Your task to perform on an android device: turn on data saver in the chrome app Image 0: 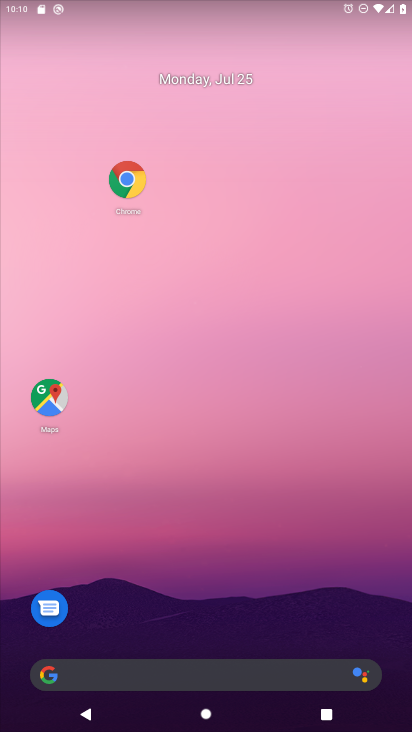
Step 0: click (119, 186)
Your task to perform on an android device: turn on data saver in the chrome app Image 1: 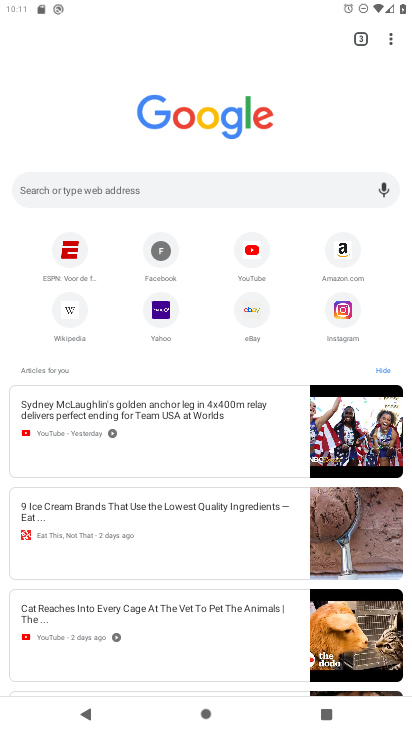
Step 1: click (392, 36)
Your task to perform on an android device: turn on data saver in the chrome app Image 2: 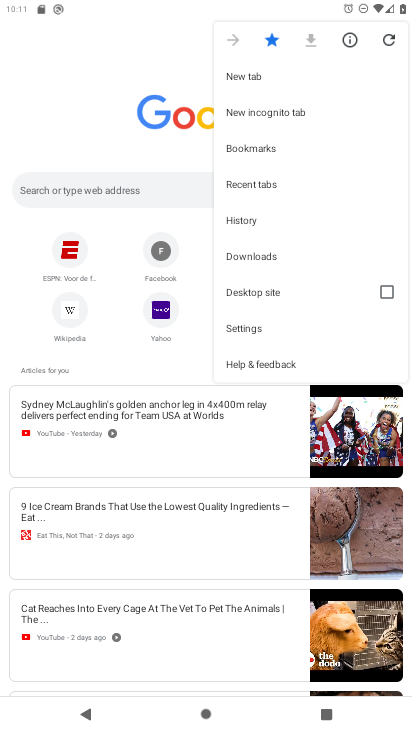
Step 2: click (257, 330)
Your task to perform on an android device: turn on data saver in the chrome app Image 3: 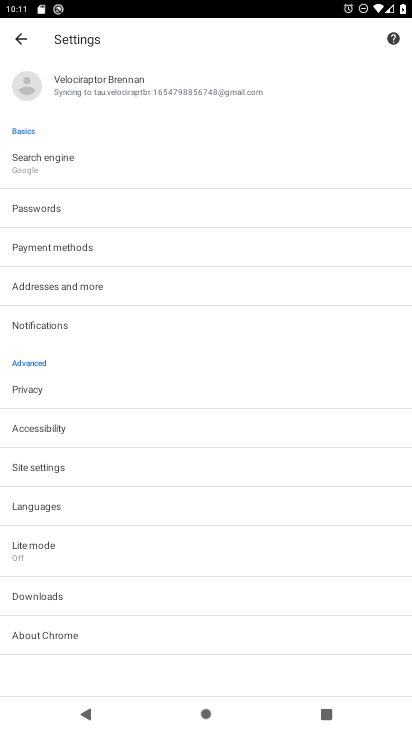
Step 3: click (71, 550)
Your task to perform on an android device: turn on data saver in the chrome app Image 4: 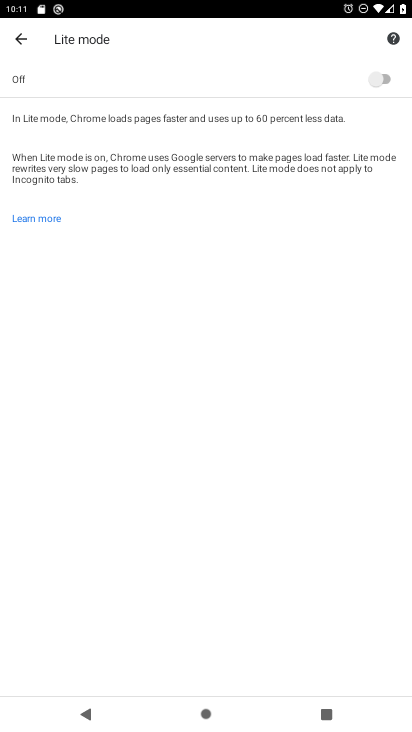
Step 4: click (378, 84)
Your task to perform on an android device: turn on data saver in the chrome app Image 5: 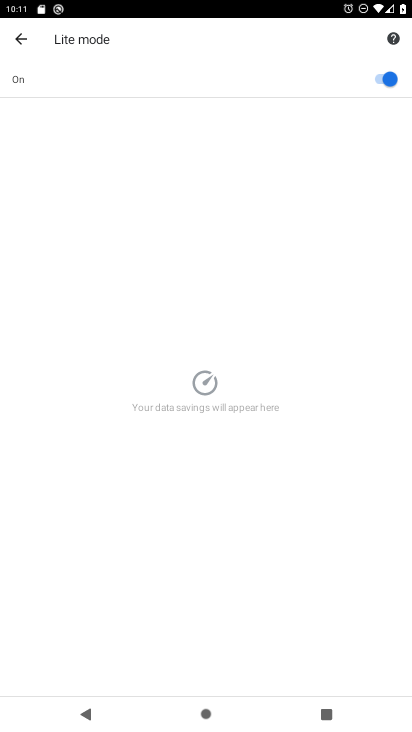
Step 5: task complete